Your task to perform on an android device: delete the emails in spam in the gmail app Image 0: 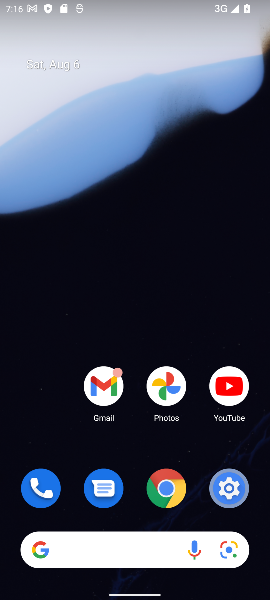
Step 0: click (94, 388)
Your task to perform on an android device: delete the emails in spam in the gmail app Image 1: 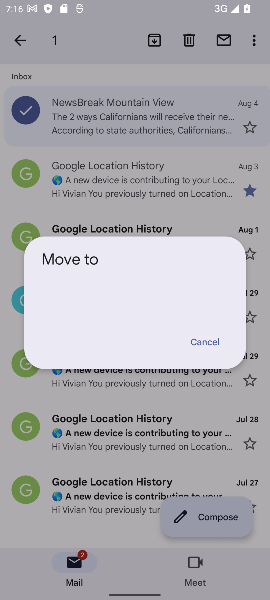
Step 1: click (246, 344)
Your task to perform on an android device: delete the emails in spam in the gmail app Image 2: 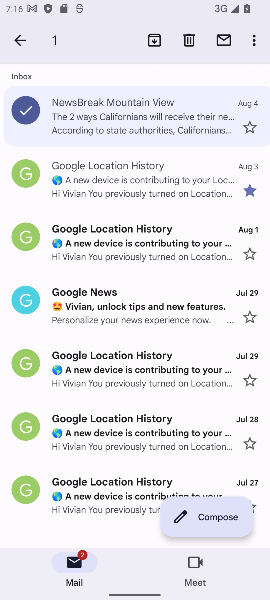
Step 2: click (19, 45)
Your task to perform on an android device: delete the emails in spam in the gmail app Image 3: 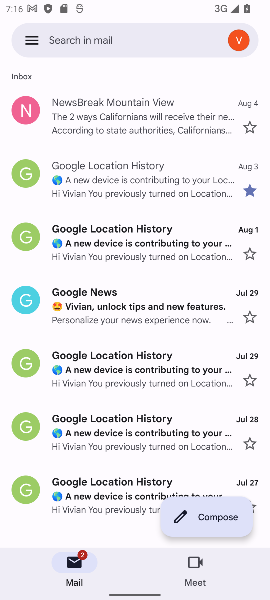
Step 3: click (26, 45)
Your task to perform on an android device: delete the emails in spam in the gmail app Image 4: 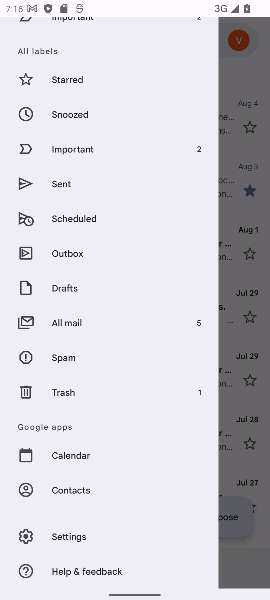
Step 4: click (74, 361)
Your task to perform on an android device: delete the emails in spam in the gmail app Image 5: 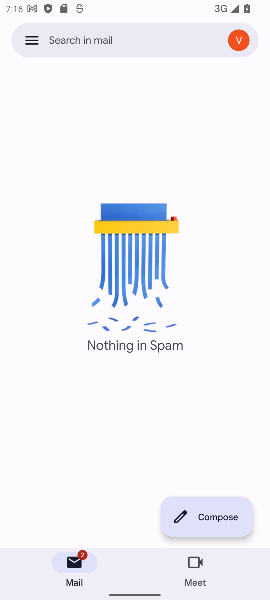
Step 5: task complete